Your task to perform on an android device: Empty the shopping cart on ebay. Image 0: 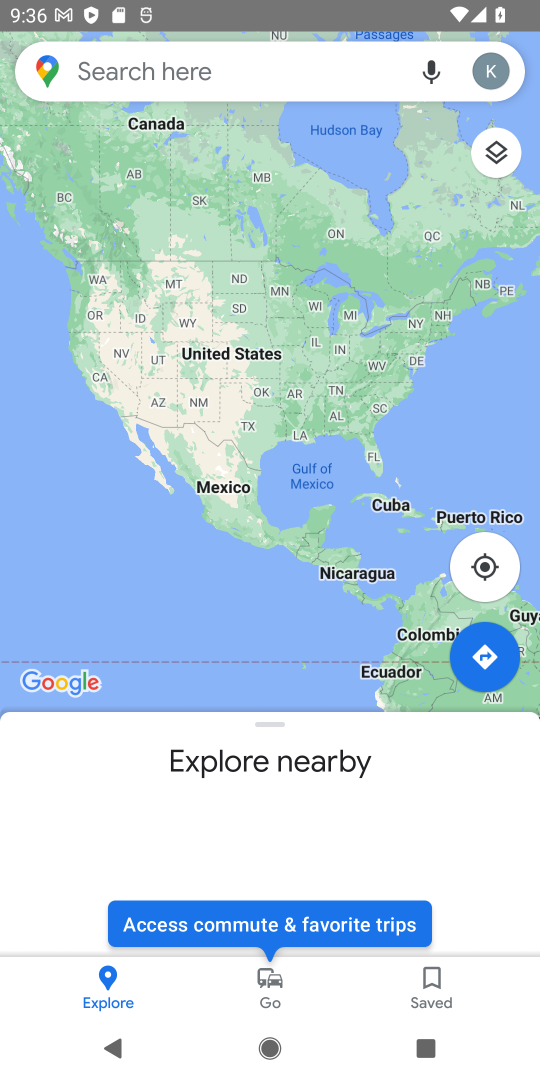
Step 0: press home button
Your task to perform on an android device: Empty the shopping cart on ebay. Image 1: 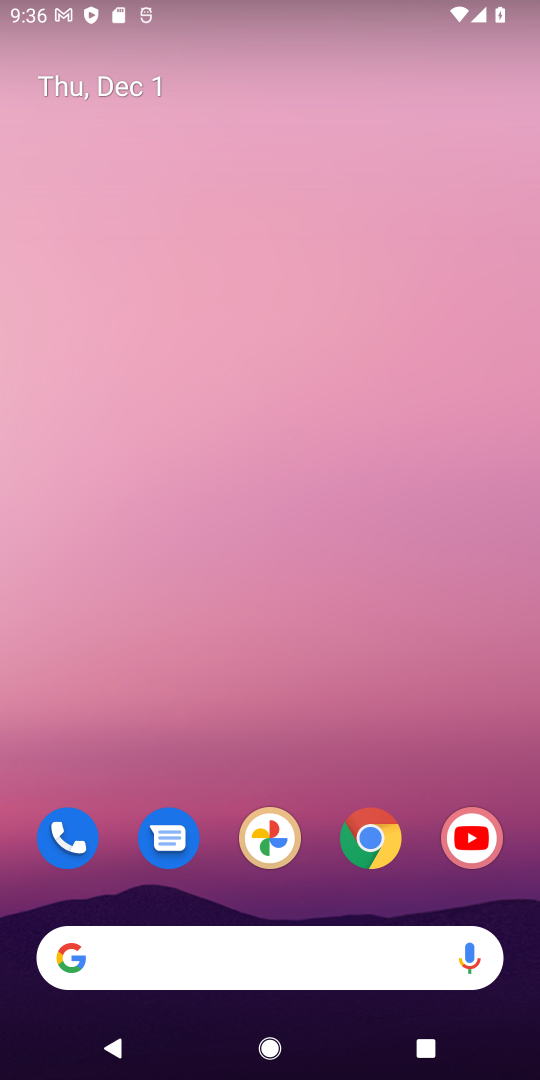
Step 1: drag from (307, 937) to (311, 332)
Your task to perform on an android device: Empty the shopping cart on ebay. Image 2: 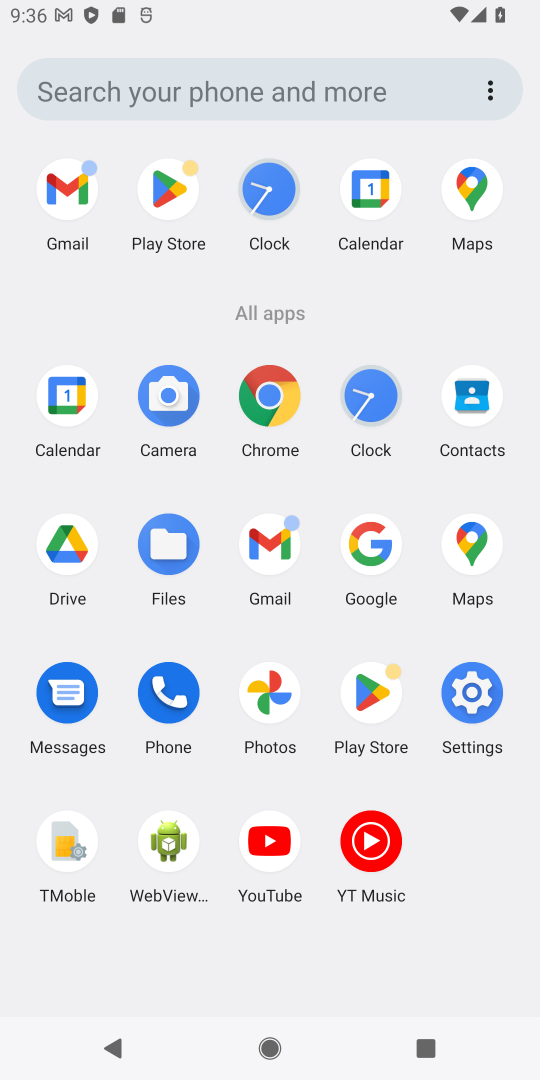
Step 2: click (371, 558)
Your task to perform on an android device: Empty the shopping cart on ebay. Image 3: 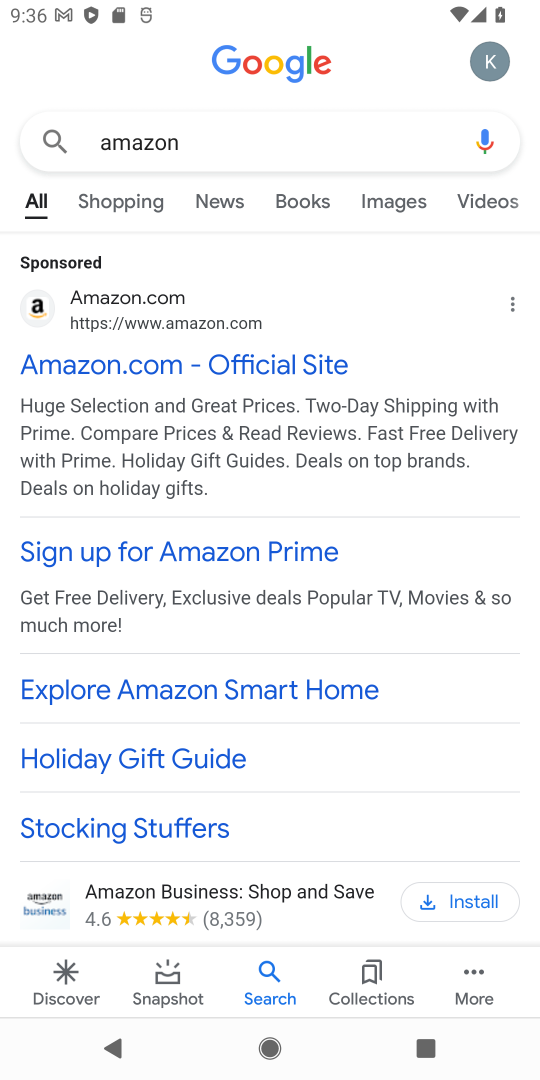
Step 3: click (131, 159)
Your task to perform on an android device: Empty the shopping cart on ebay. Image 4: 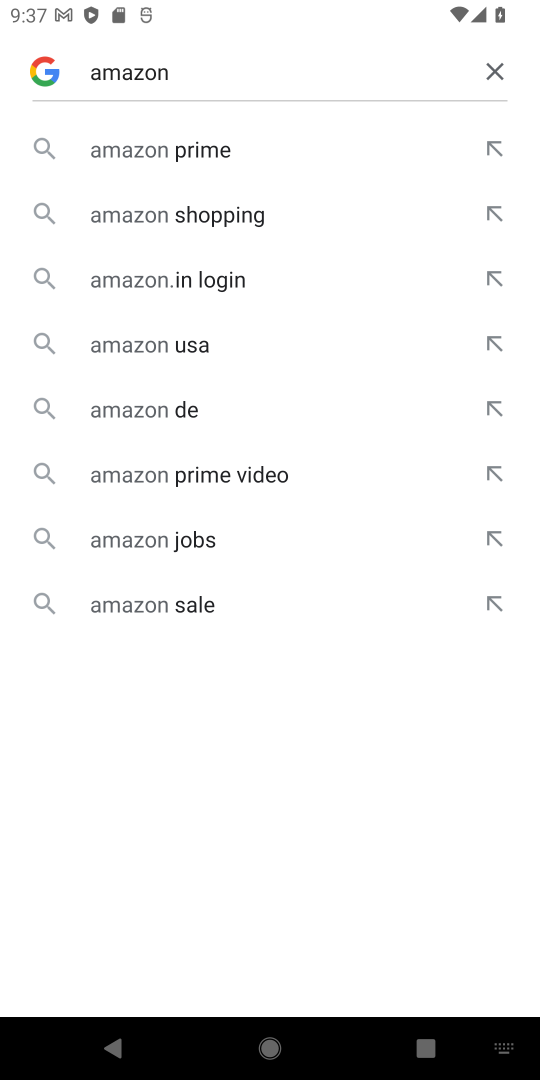
Step 4: click (501, 69)
Your task to perform on an android device: Empty the shopping cart on ebay. Image 5: 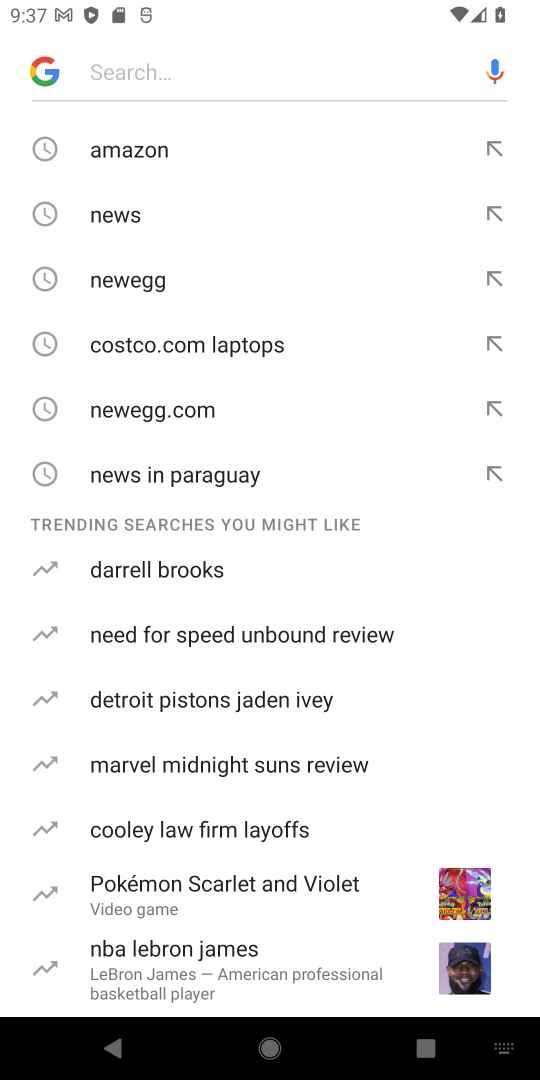
Step 5: type "eabay"
Your task to perform on an android device: Empty the shopping cart on ebay. Image 6: 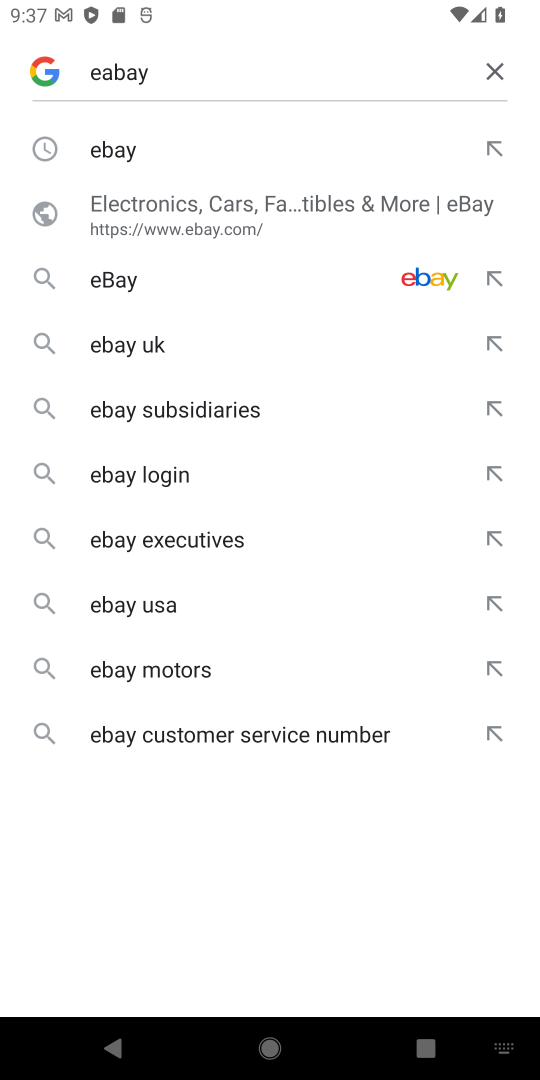
Step 6: click (138, 138)
Your task to perform on an android device: Empty the shopping cart on ebay. Image 7: 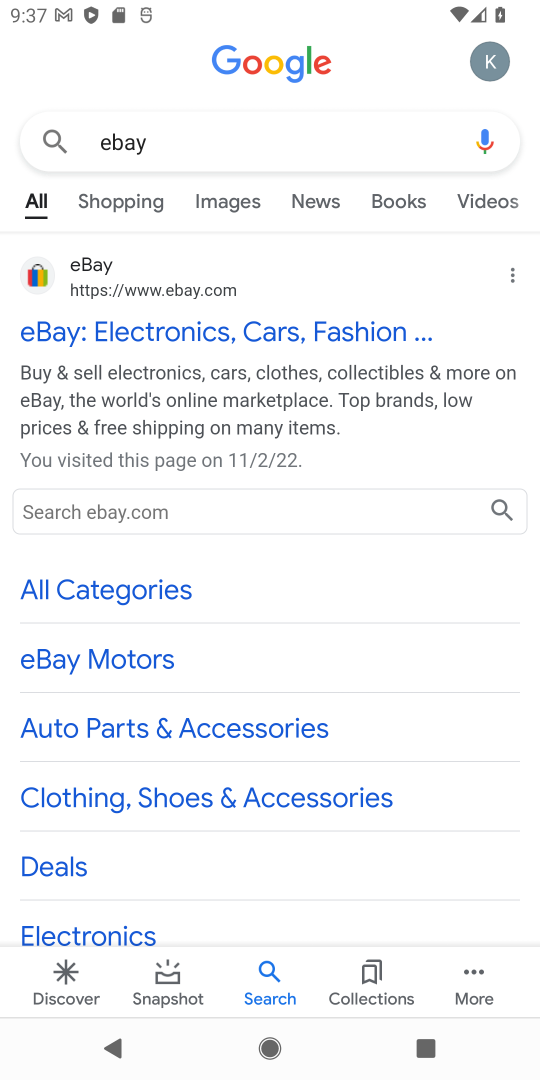
Step 7: click (208, 340)
Your task to perform on an android device: Empty the shopping cart on ebay. Image 8: 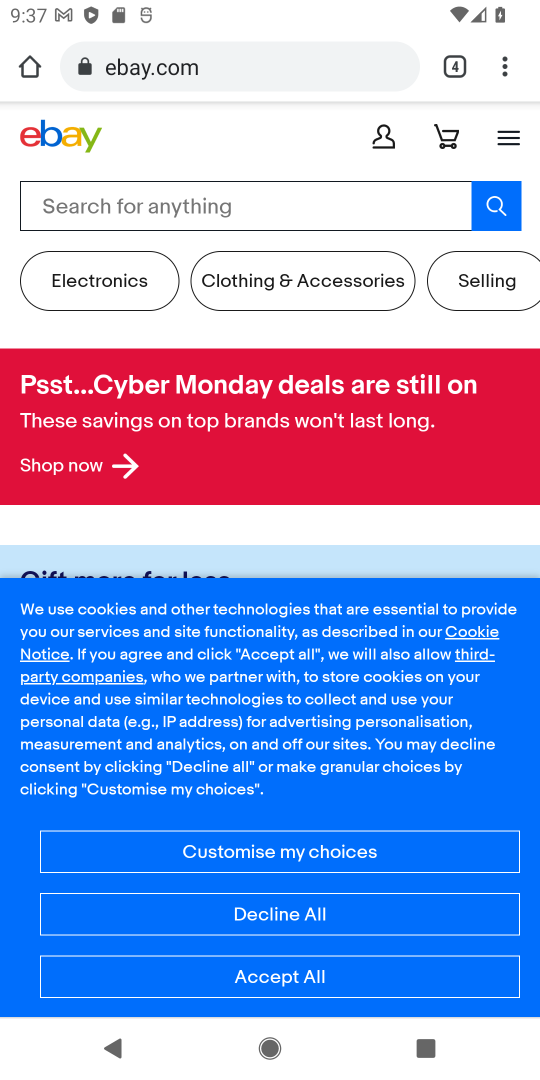
Step 8: click (194, 201)
Your task to perform on an android device: Empty the shopping cart on ebay. Image 9: 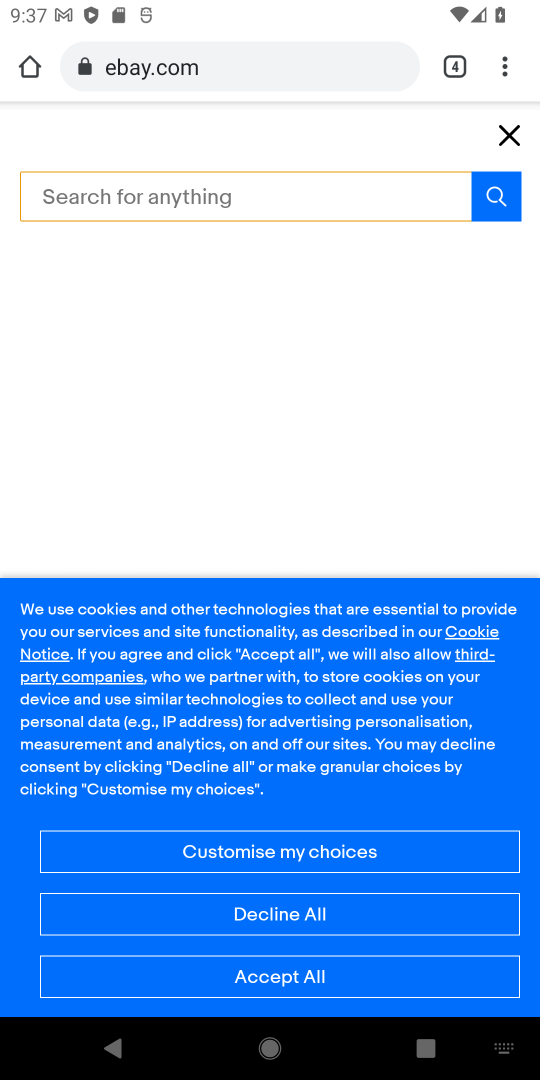
Step 9: click (498, 137)
Your task to perform on an android device: Empty the shopping cart on ebay. Image 10: 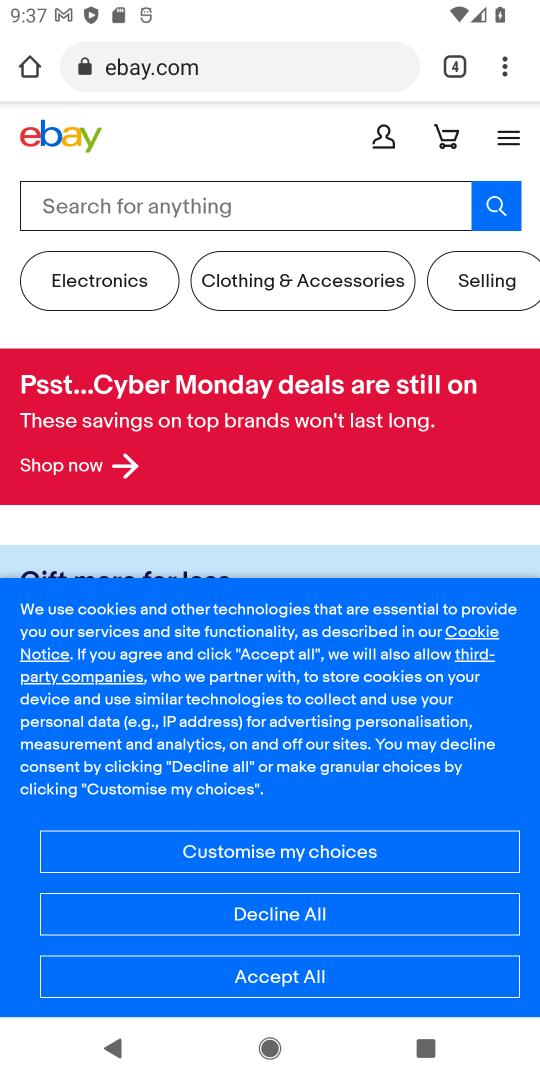
Step 10: task complete